Your task to perform on an android device: change the clock display to show seconds Image 0: 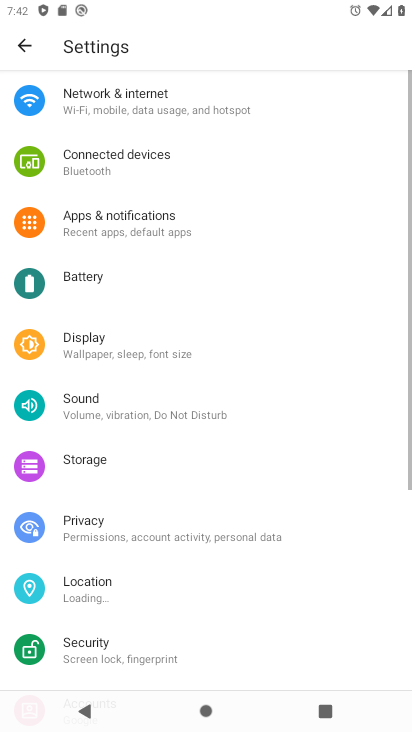
Step 0: drag from (29, 693) to (226, 162)
Your task to perform on an android device: change the clock display to show seconds Image 1: 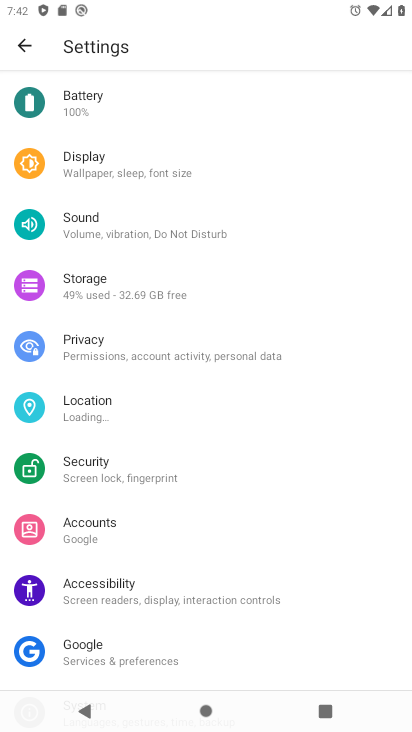
Step 1: press home button
Your task to perform on an android device: change the clock display to show seconds Image 2: 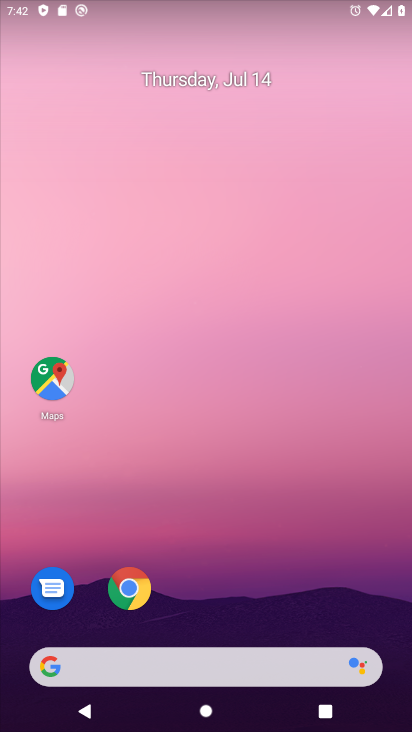
Step 2: drag from (113, 523) to (371, 73)
Your task to perform on an android device: change the clock display to show seconds Image 3: 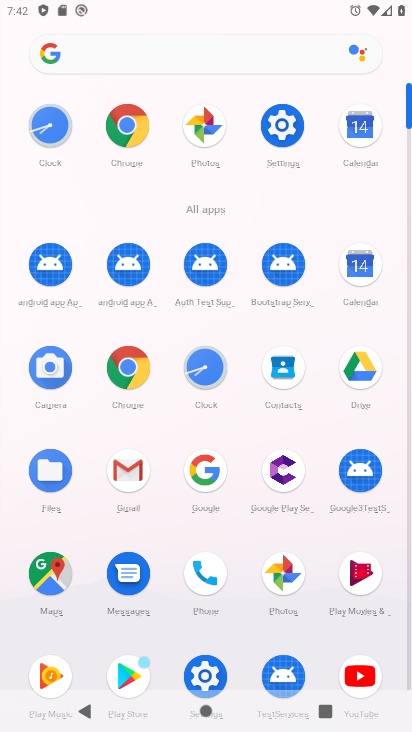
Step 3: click (191, 378)
Your task to perform on an android device: change the clock display to show seconds Image 4: 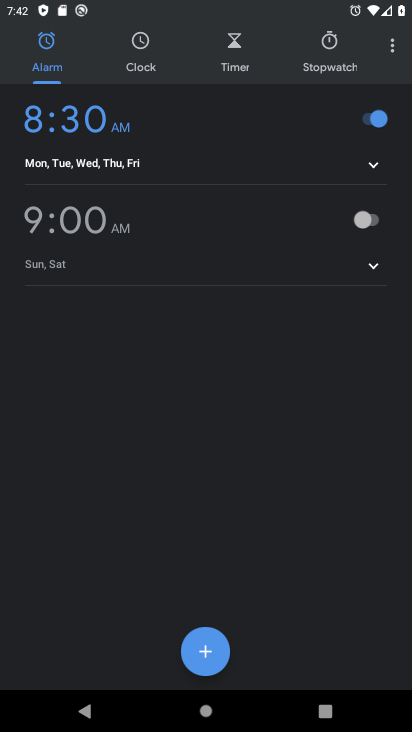
Step 4: click (388, 34)
Your task to perform on an android device: change the clock display to show seconds Image 5: 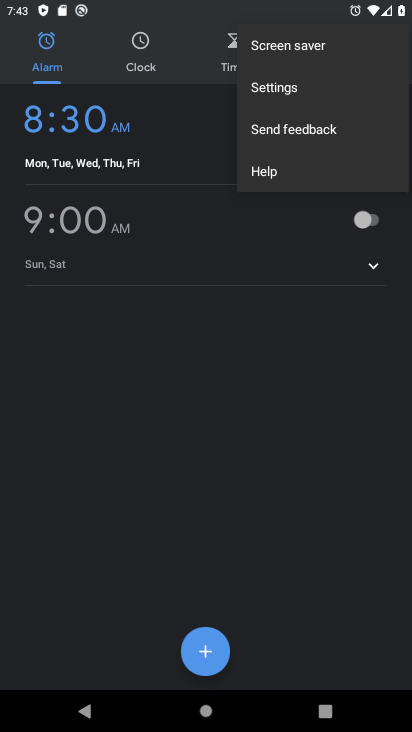
Step 5: click (283, 93)
Your task to perform on an android device: change the clock display to show seconds Image 6: 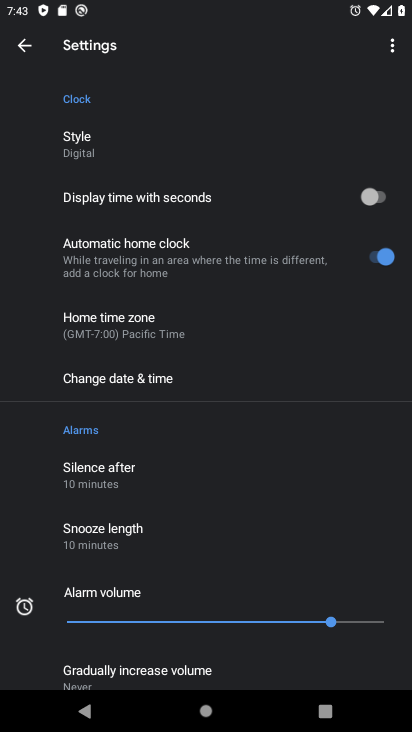
Step 6: click (379, 198)
Your task to perform on an android device: change the clock display to show seconds Image 7: 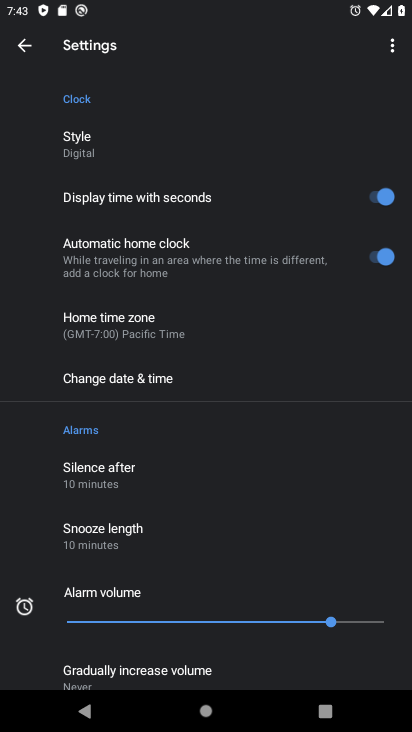
Step 7: task complete